Your task to perform on an android device: See recent photos Image 0: 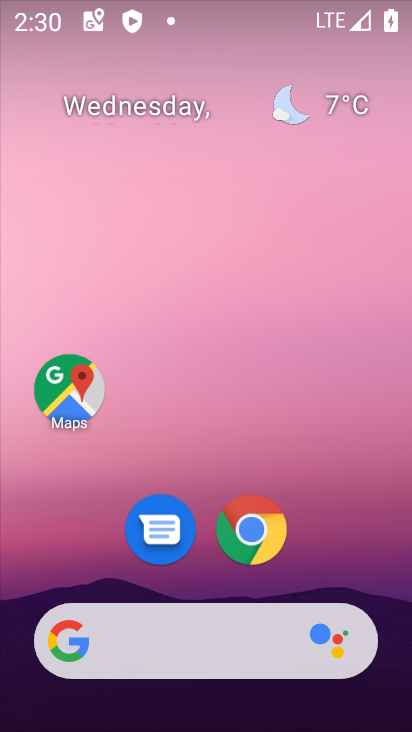
Step 0: drag from (333, 540) to (280, 0)
Your task to perform on an android device: See recent photos Image 1: 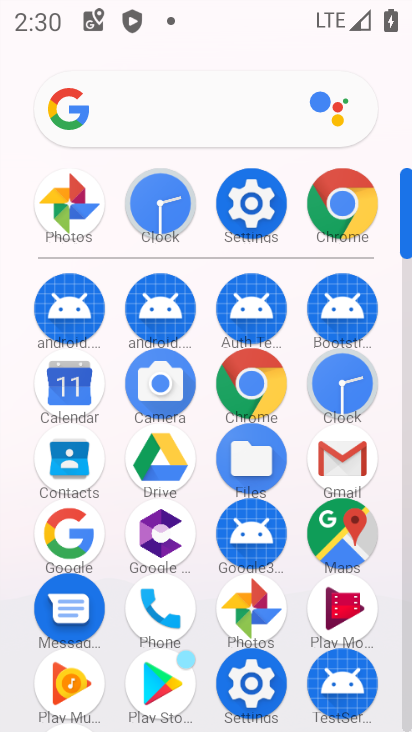
Step 1: click (65, 203)
Your task to perform on an android device: See recent photos Image 2: 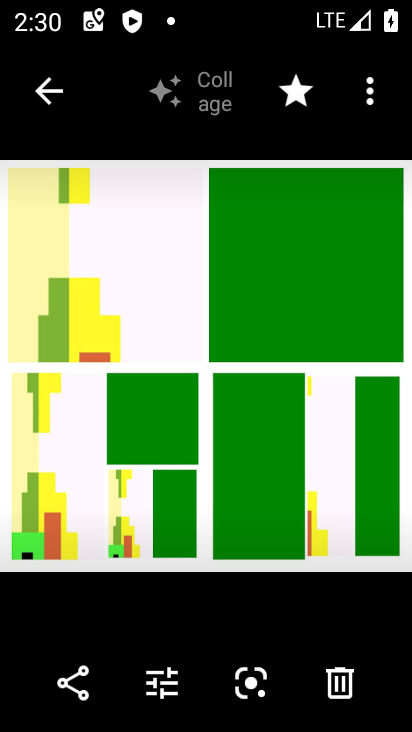
Step 2: task complete